Your task to perform on an android device: Go to Reddit.com Image 0: 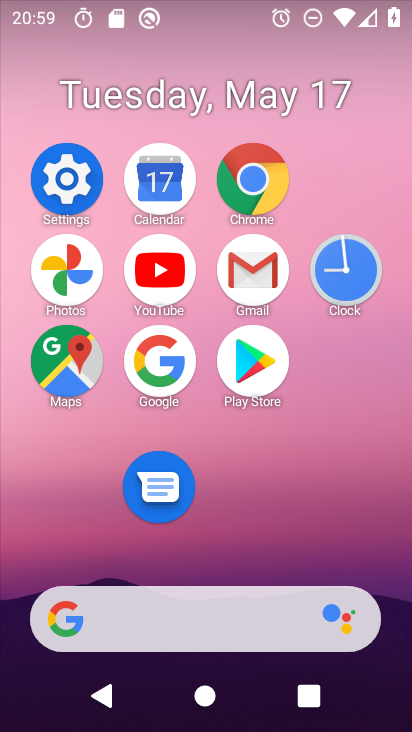
Step 0: click (258, 212)
Your task to perform on an android device: Go to Reddit.com Image 1: 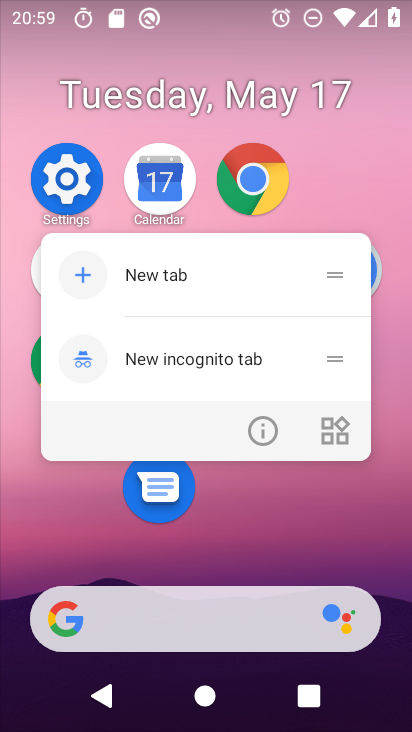
Step 1: click (258, 212)
Your task to perform on an android device: Go to Reddit.com Image 2: 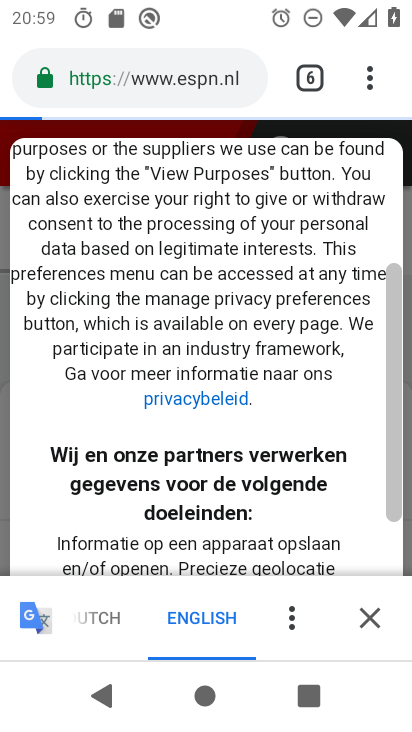
Step 2: click (294, 70)
Your task to perform on an android device: Go to Reddit.com Image 3: 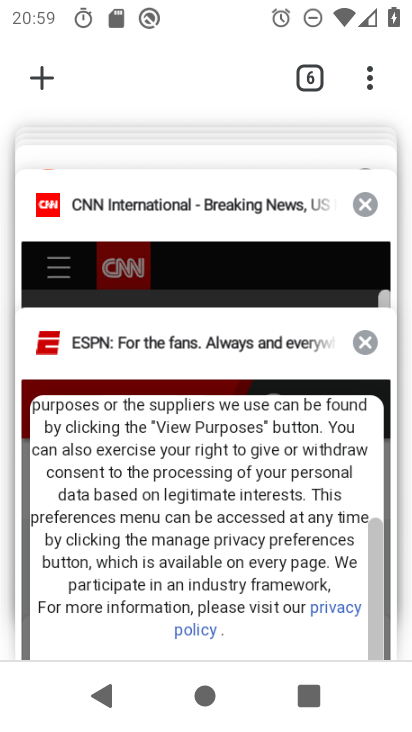
Step 3: drag from (219, 221) to (191, 453)
Your task to perform on an android device: Go to Reddit.com Image 4: 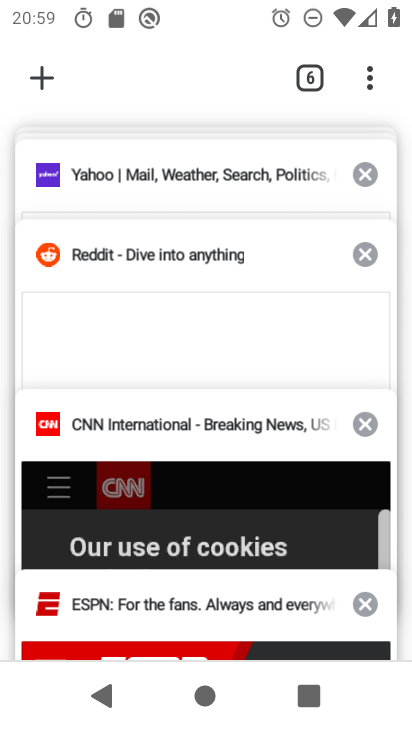
Step 4: click (160, 250)
Your task to perform on an android device: Go to Reddit.com Image 5: 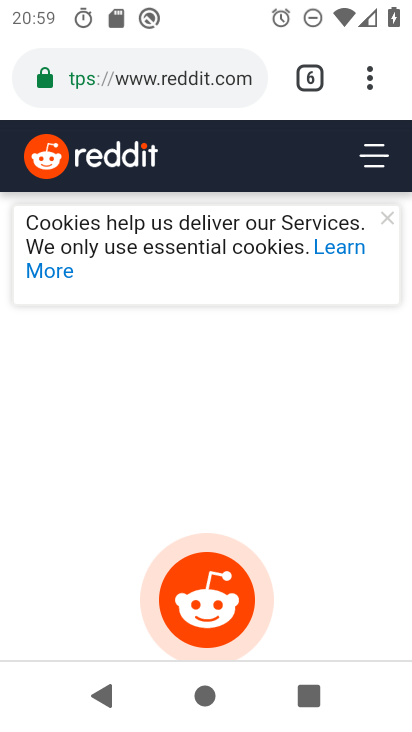
Step 5: task complete